Your task to perform on an android device: Toggle the flashlight Image 0: 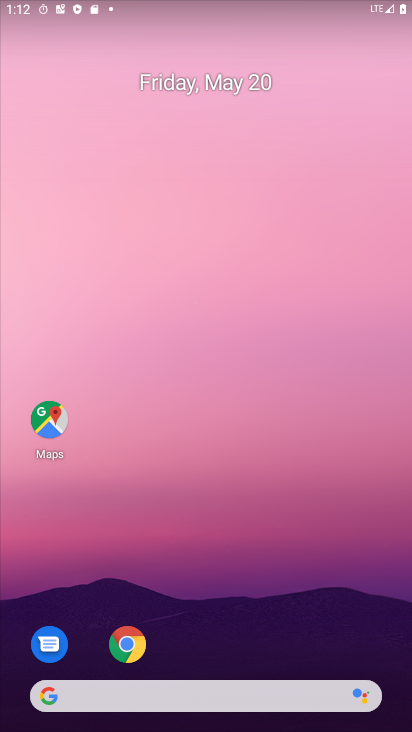
Step 0: drag from (353, 503) to (327, 141)
Your task to perform on an android device: Toggle the flashlight Image 1: 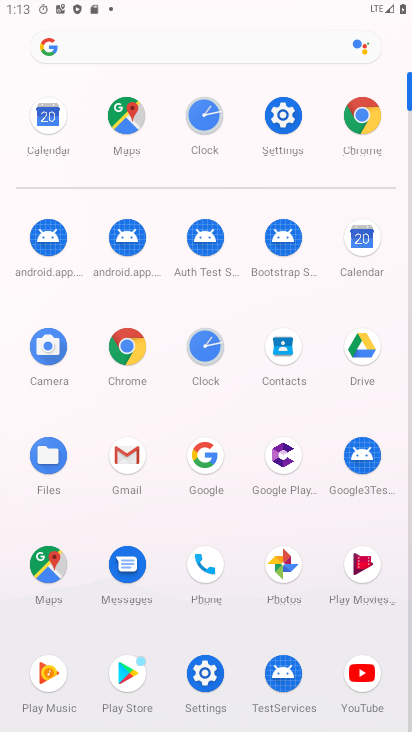
Step 1: click (280, 128)
Your task to perform on an android device: Toggle the flashlight Image 2: 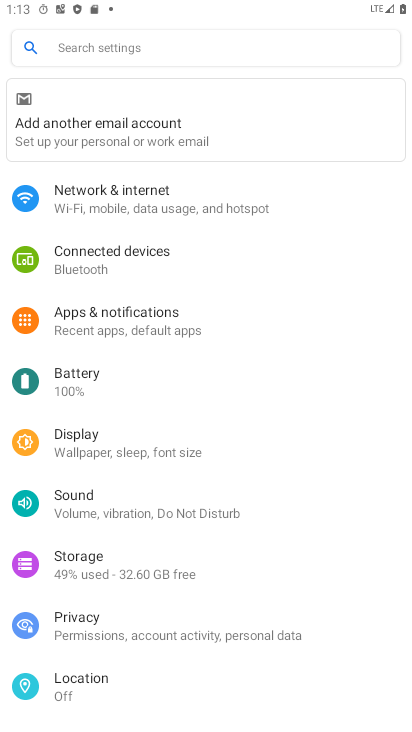
Step 2: task complete